Your task to perform on an android device: set an alarm Image 0: 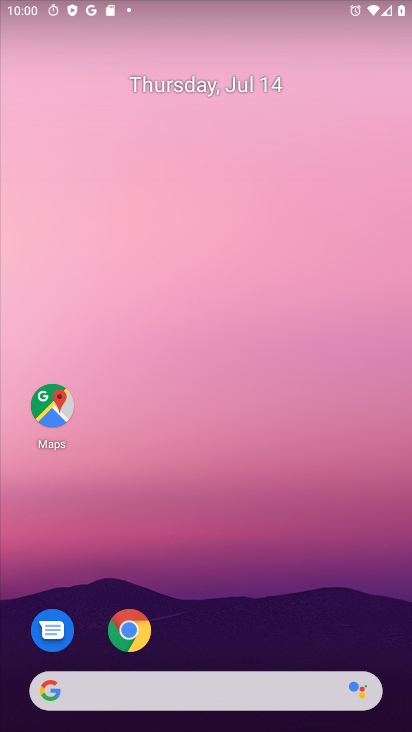
Step 0: drag from (25, 704) to (162, 122)
Your task to perform on an android device: set an alarm Image 1: 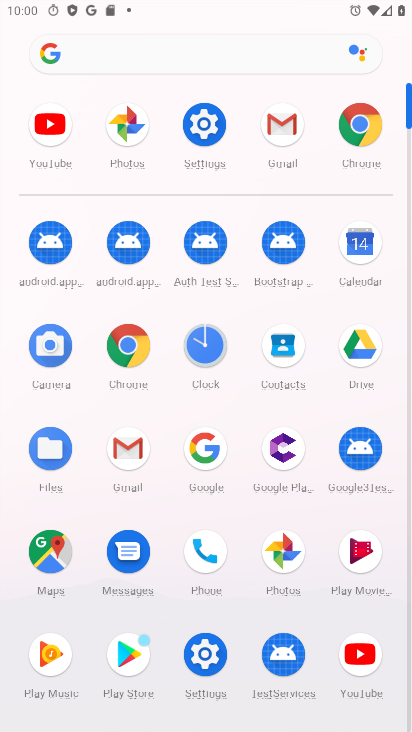
Step 1: click (197, 356)
Your task to perform on an android device: set an alarm Image 2: 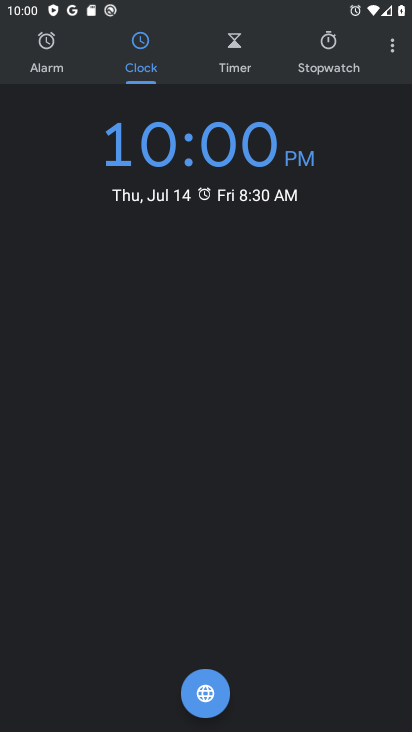
Step 2: click (65, 72)
Your task to perform on an android device: set an alarm Image 3: 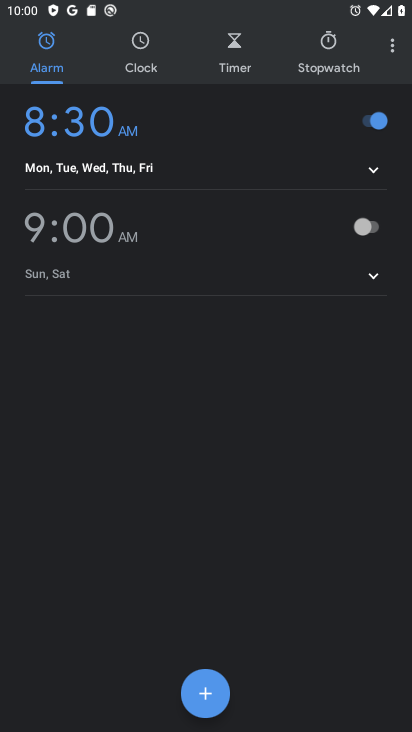
Step 3: task complete